Your task to perform on an android device: change keyboard looks Image 0: 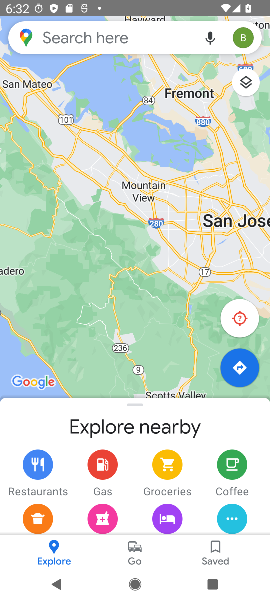
Step 0: press home button
Your task to perform on an android device: change keyboard looks Image 1: 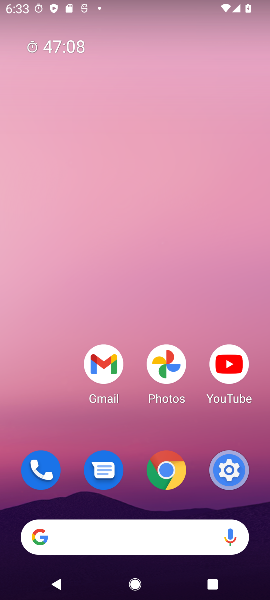
Step 1: drag from (123, 499) to (107, 109)
Your task to perform on an android device: change keyboard looks Image 2: 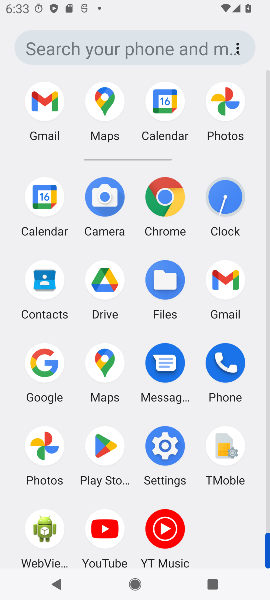
Step 2: click (175, 441)
Your task to perform on an android device: change keyboard looks Image 3: 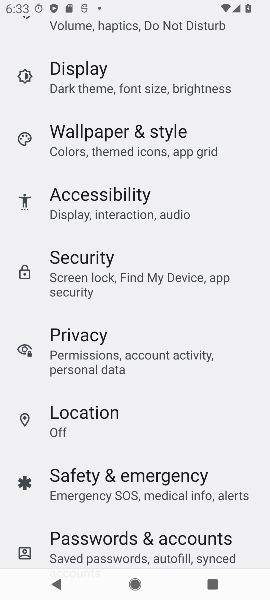
Step 3: drag from (134, 515) to (160, 74)
Your task to perform on an android device: change keyboard looks Image 4: 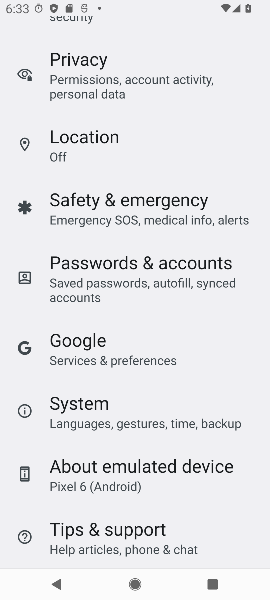
Step 4: click (115, 419)
Your task to perform on an android device: change keyboard looks Image 5: 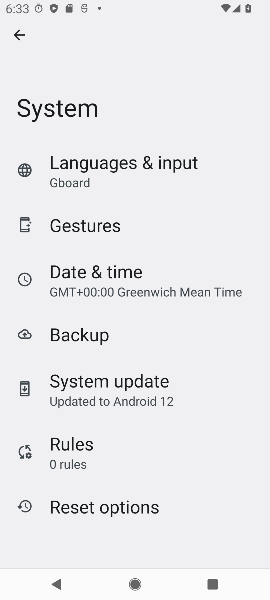
Step 5: click (70, 230)
Your task to perform on an android device: change keyboard looks Image 6: 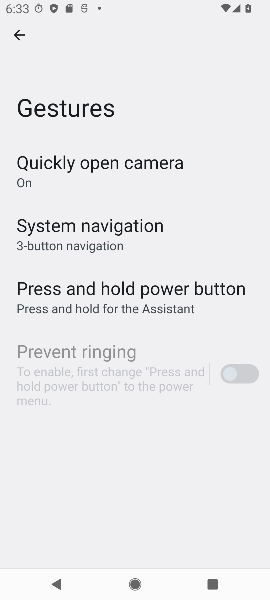
Step 6: click (18, 31)
Your task to perform on an android device: change keyboard looks Image 7: 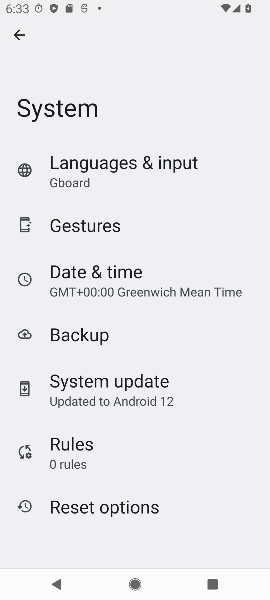
Step 7: click (101, 176)
Your task to perform on an android device: change keyboard looks Image 8: 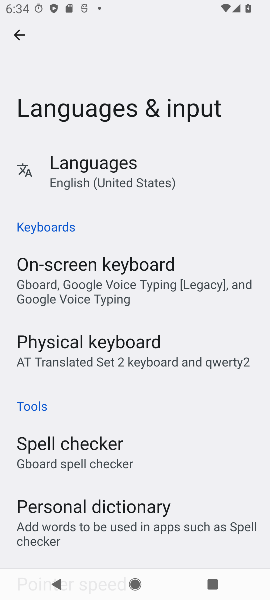
Step 8: click (85, 180)
Your task to perform on an android device: change keyboard looks Image 9: 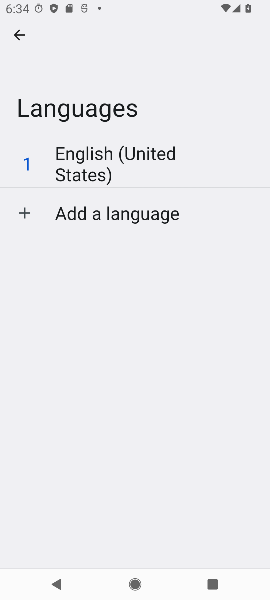
Step 9: click (16, 39)
Your task to perform on an android device: change keyboard looks Image 10: 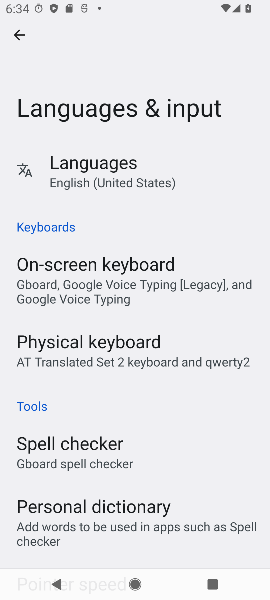
Step 10: drag from (151, 473) to (146, 97)
Your task to perform on an android device: change keyboard looks Image 11: 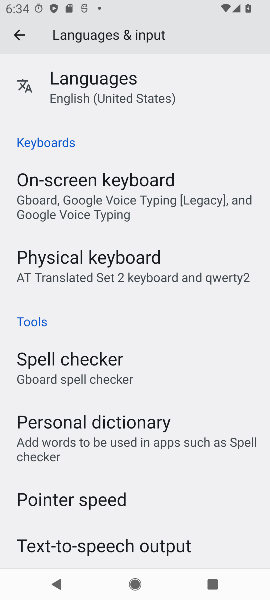
Step 11: click (12, 27)
Your task to perform on an android device: change keyboard looks Image 12: 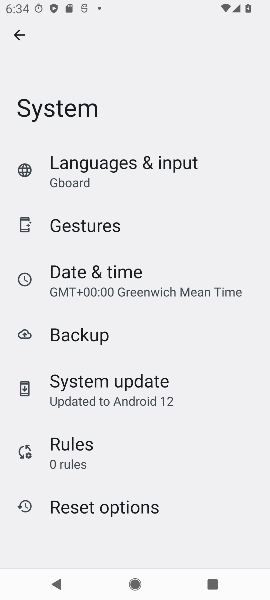
Step 12: task complete